Your task to perform on an android device: refresh tabs in the chrome app Image 0: 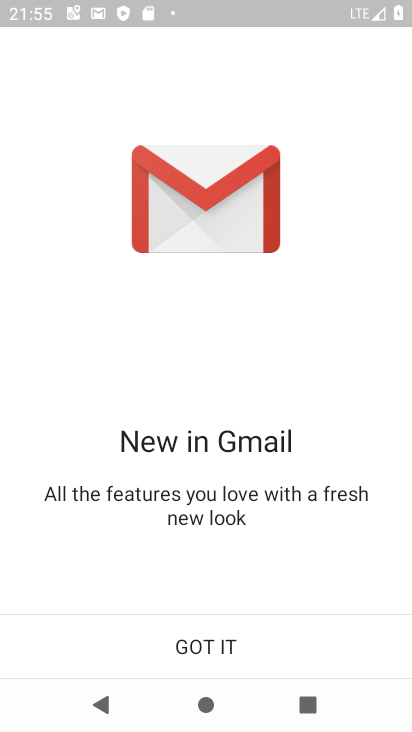
Step 0: press enter
Your task to perform on an android device: refresh tabs in the chrome app Image 1: 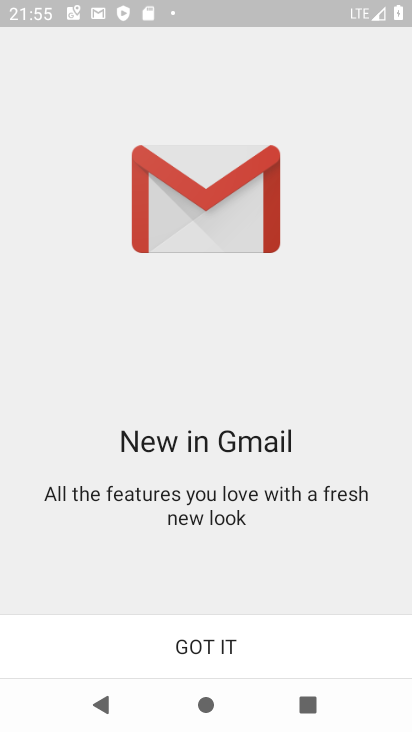
Step 1: press home button
Your task to perform on an android device: refresh tabs in the chrome app Image 2: 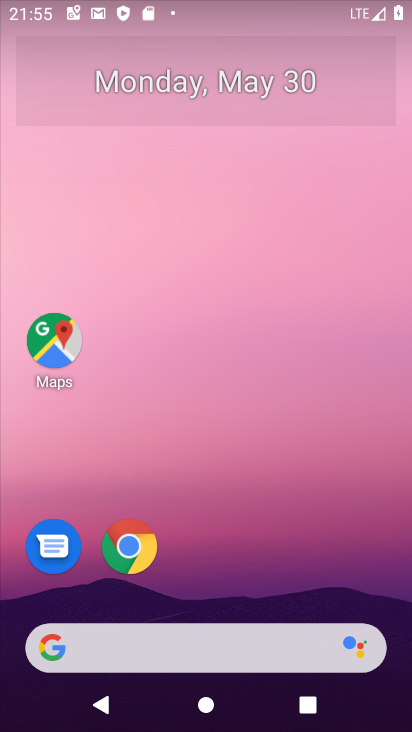
Step 2: drag from (262, 591) to (249, 171)
Your task to perform on an android device: refresh tabs in the chrome app Image 3: 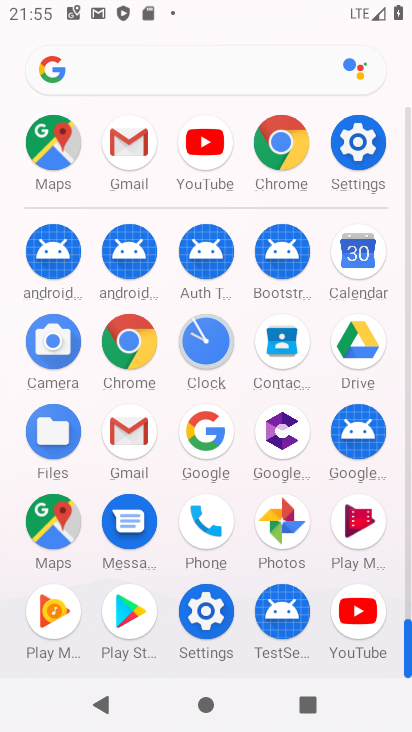
Step 3: click (312, 153)
Your task to perform on an android device: refresh tabs in the chrome app Image 4: 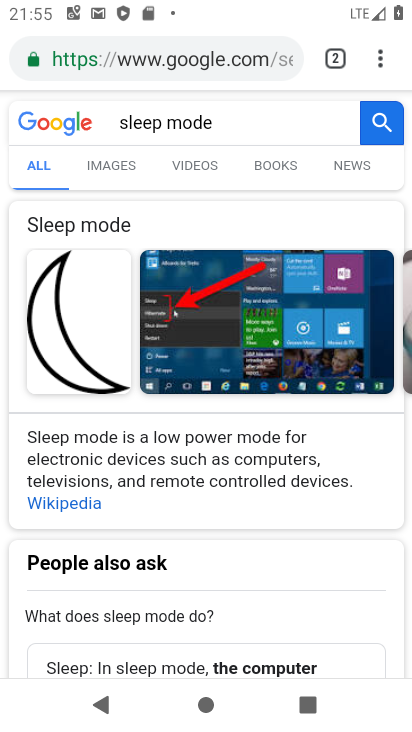
Step 4: click (375, 68)
Your task to perform on an android device: refresh tabs in the chrome app Image 5: 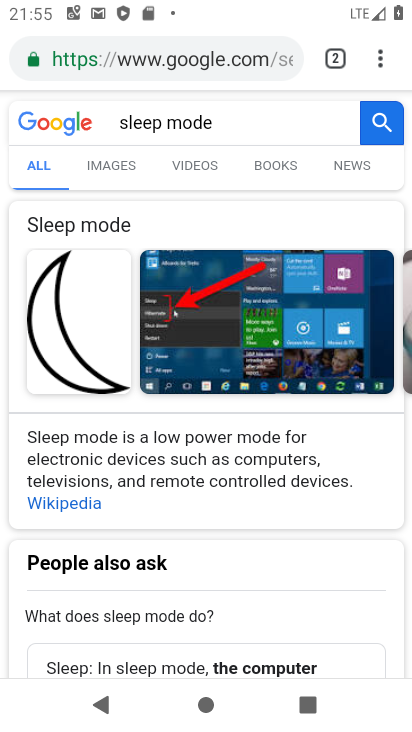
Step 5: task complete